Your task to perform on an android device: Open Google Maps and go to "Timeline" Image 0: 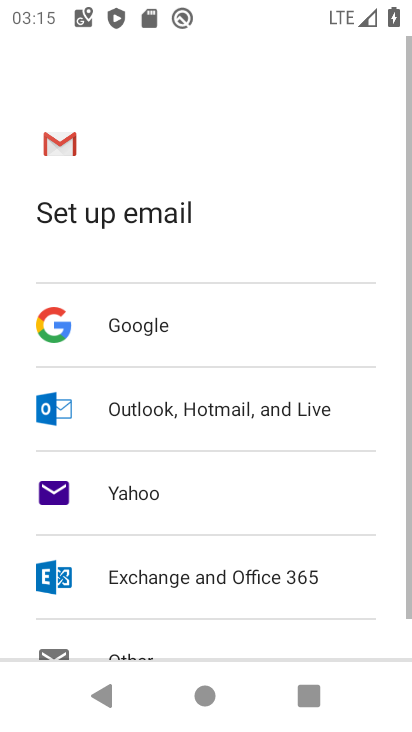
Step 0: press home button
Your task to perform on an android device: Open Google Maps and go to "Timeline" Image 1: 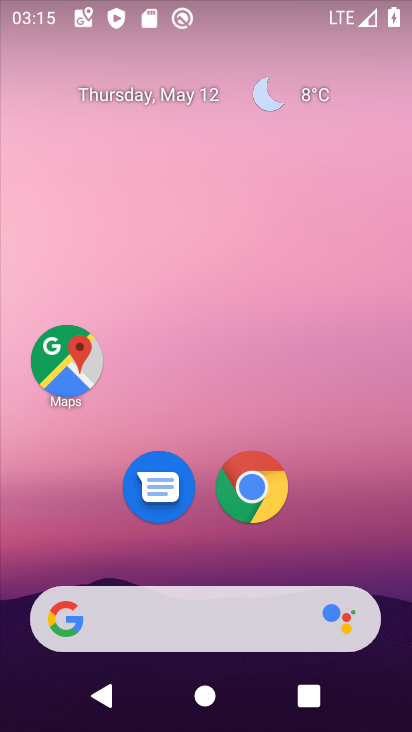
Step 1: click (59, 358)
Your task to perform on an android device: Open Google Maps and go to "Timeline" Image 2: 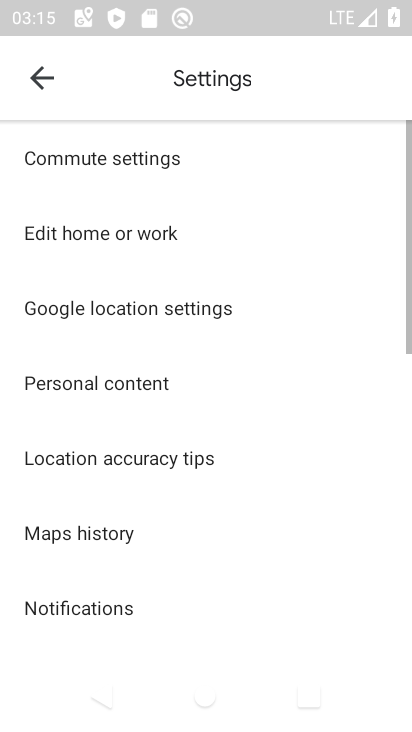
Step 2: click (38, 70)
Your task to perform on an android device: Open Google Maps and go to "Timeline" Image 3: 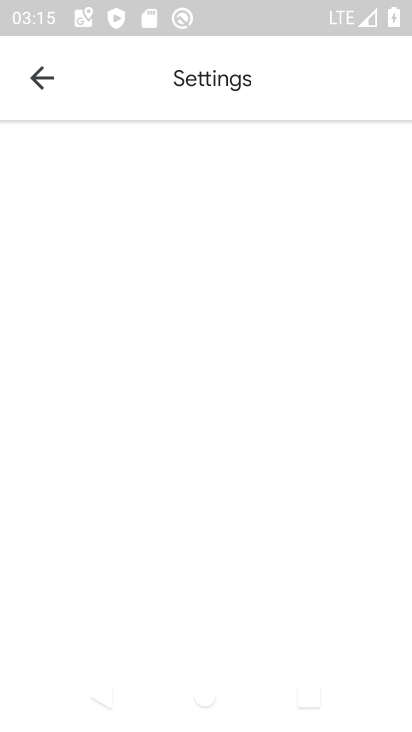
Step 3: click (36, 72)
Your task to perform on an android device: Open Google Maps and go to "Timeline" Image 4: 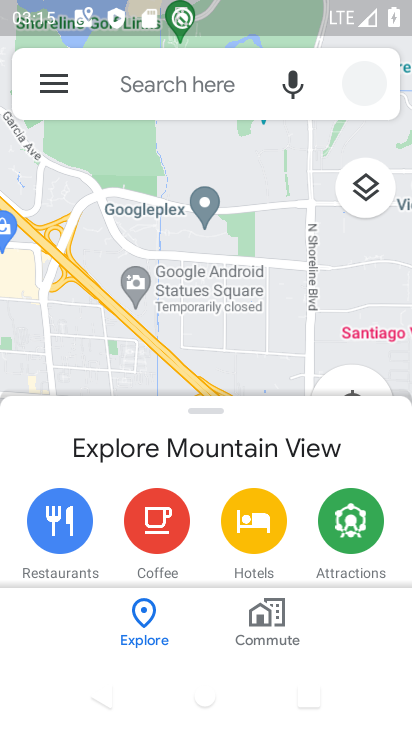
Step 4: click (55, 89)
Your task to perform on an android device: Open Google Maps and go to "Timeline" Image 5: 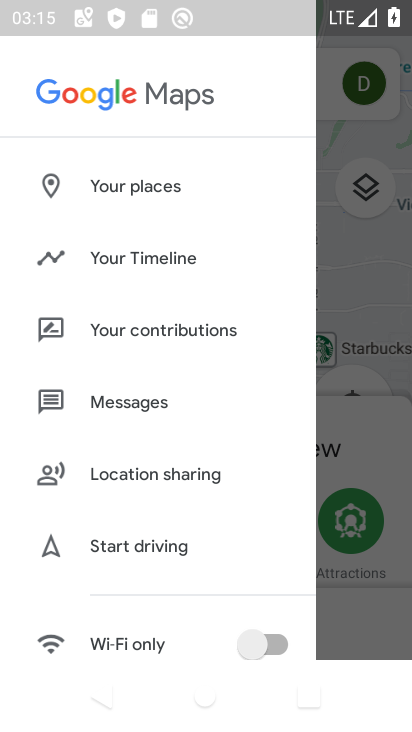
Step 5: click (141, 250)
Your task to perform on an android device: Open Google Maps and go to "Timeline" Image 6: 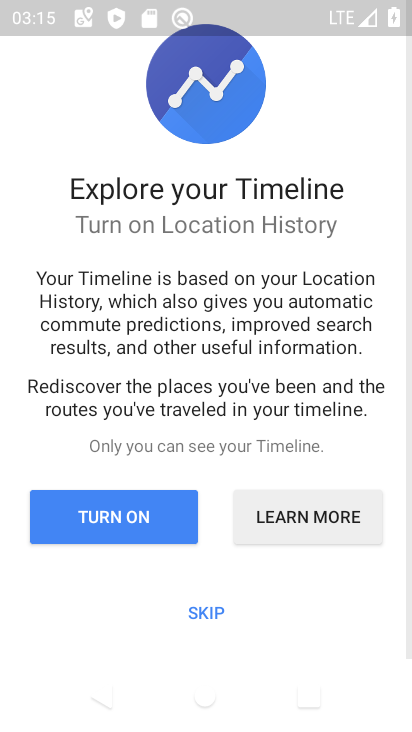
Step 6: click (120, 528)
Your task to perform on an android device: Open Google Maps and go to "Timeline" Image 7: 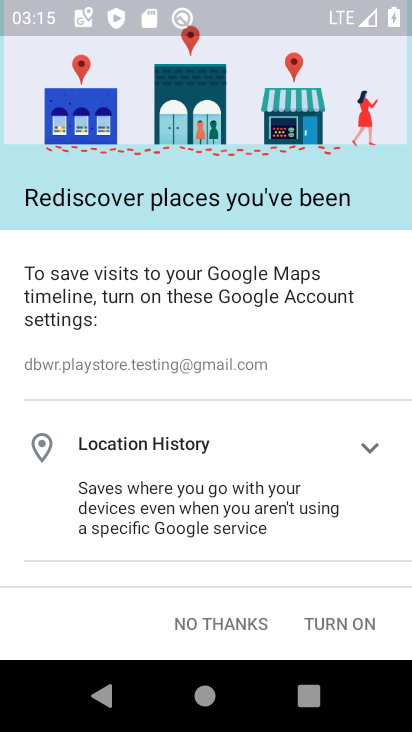
Step 7: click (190, 630)
Your task to perform on an android device: Open Google Maps and go to "Timeline" Image 8: 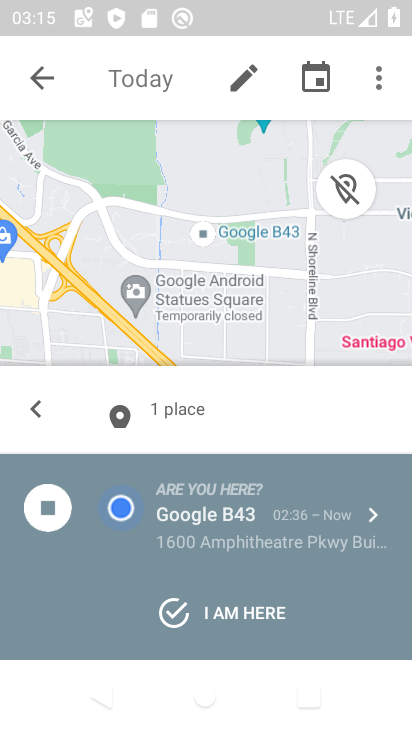
Step 8: task complete